Your task to perform on an android device: Open privacy settings Image 0: 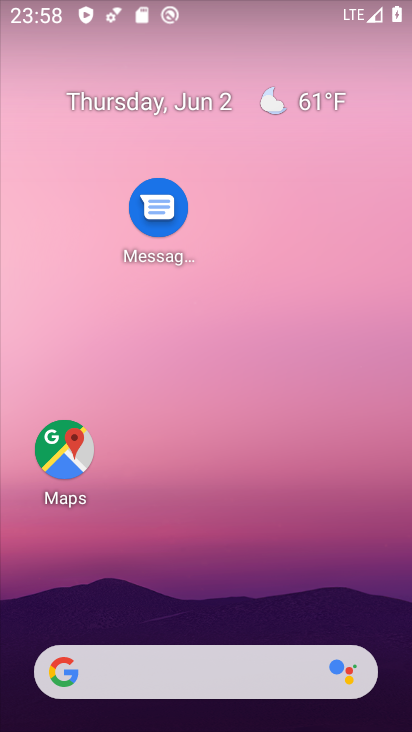
Step 0: drag from (214, 656) to (192, 22)
Your task to perform on an android device: Open privacy settings Image 1: 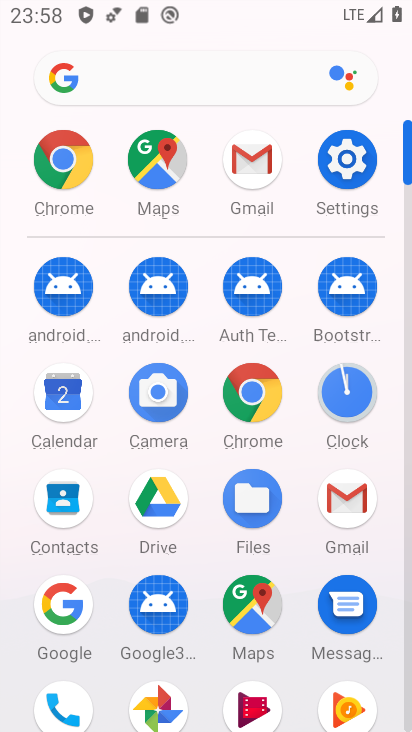
Step 1: click (339, 175)
Your task to perform on an android device: Open privacy settings Image 2: 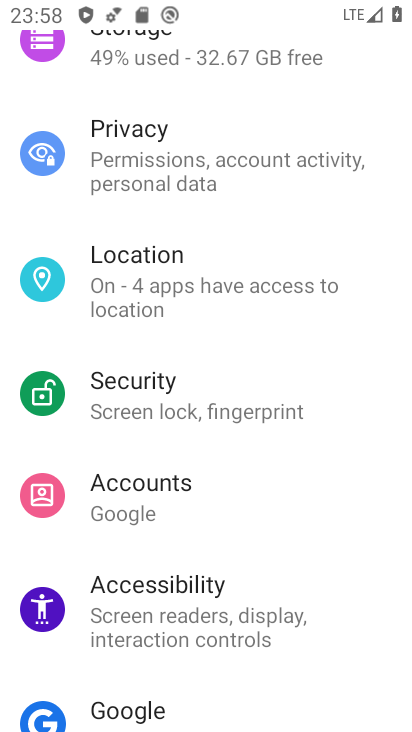
Step 2: click (142, 157)
Your task to perform on an android device: Open privacy settings Image 3: 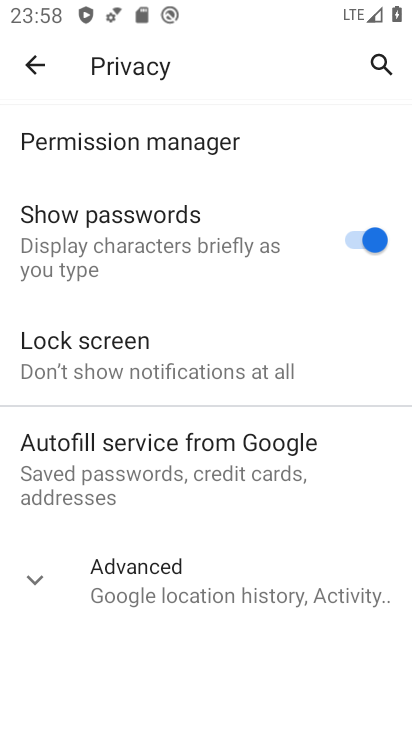
Step 3: task complete